Your task to perform on an android device: open a bookmark in the chrome app Image 0: 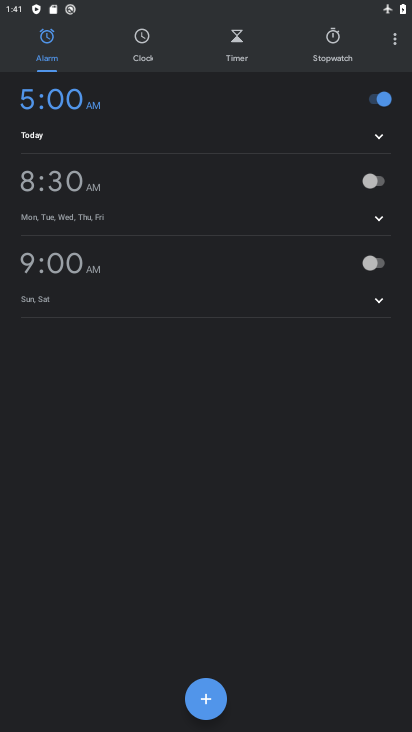
Step 0: press home button
Your task to perform on an android device: open a bookmark in the chrome app Image 1: 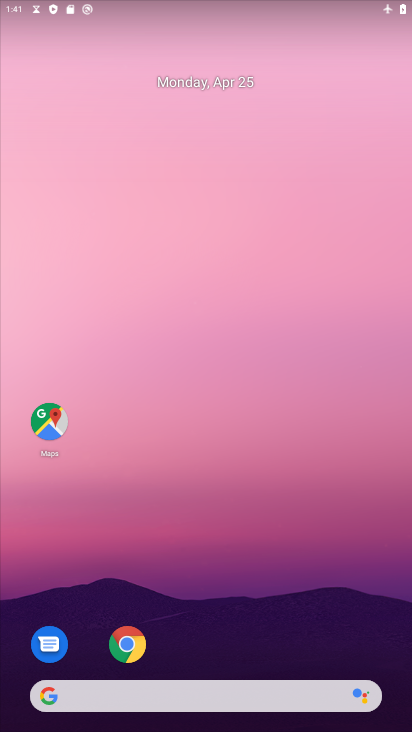
Step 1: click (127, 643)
Your task to perform on an android device: open a bookmark in the chrome app Image 2: 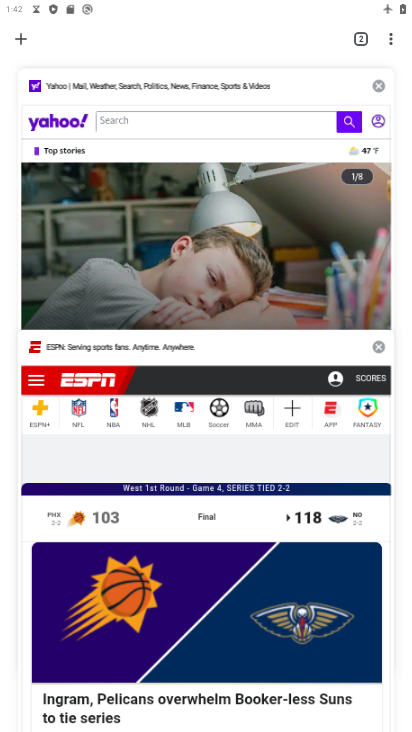
Step 2: click (392, 41)
Your task to perform on an android device: open a bookmark in the chrome app Image 3: 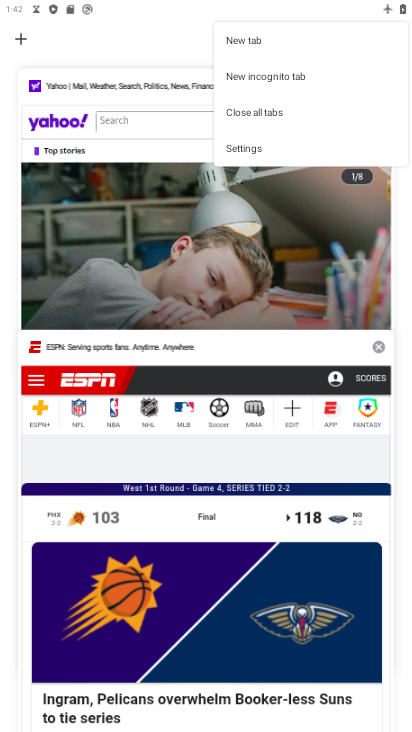
Step 3: click (399, 226)
Your task to perform on an android device: open a bookmark in the chrome app Image 4: 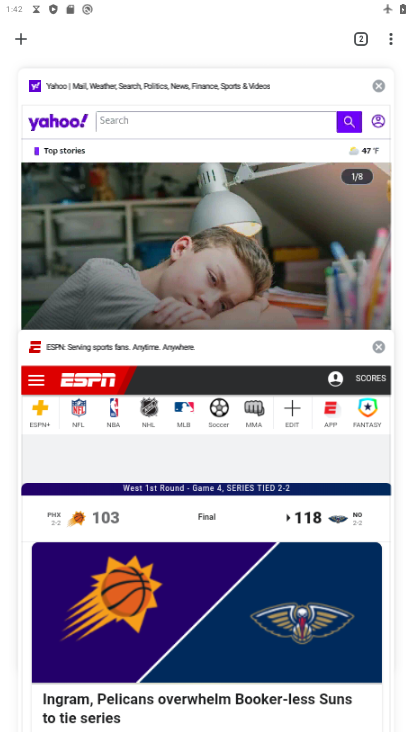
Step 4: click (390, 39)
Your task to perform on an android device: open a bookmark in the chrome app Image 5: 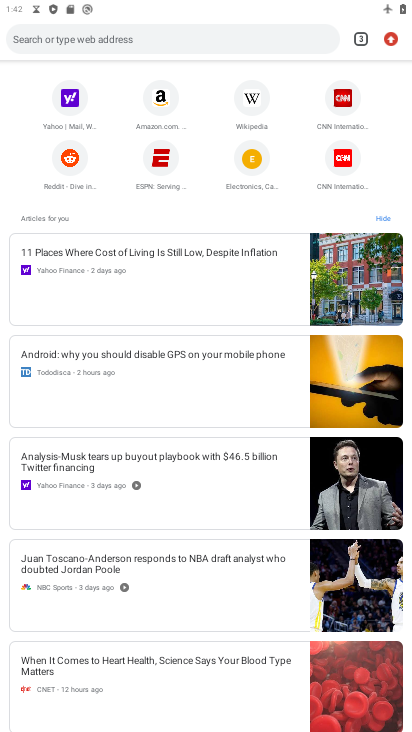
Step 5: click (389, 40)
Your task to perform on an android device: open a bookmark in the chrome app Image 6: 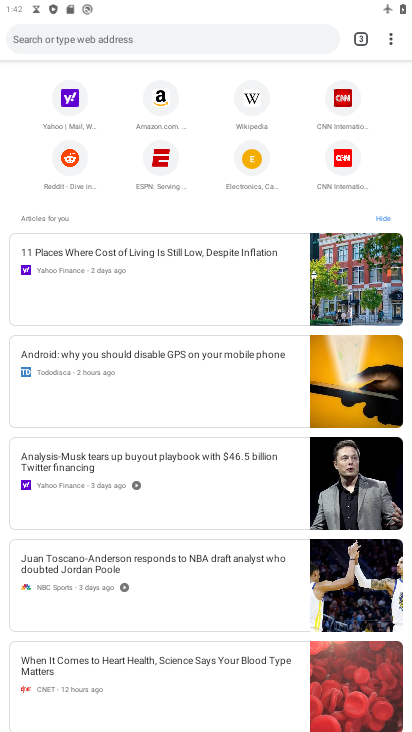
Step 6: drag from (389, 40) to (264, 189)
Your task to perform on an android device: open a bookmark in the chrome app Image 7: 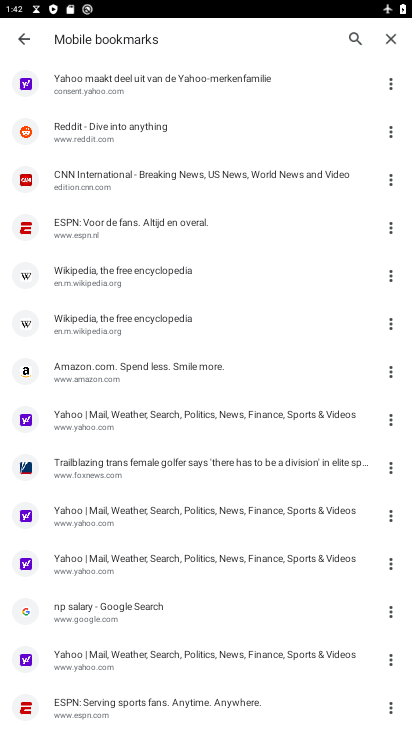
Step 7: click (98, 241)
Your task to perform on an android device: open a bookmark in the chrome app Image 8: 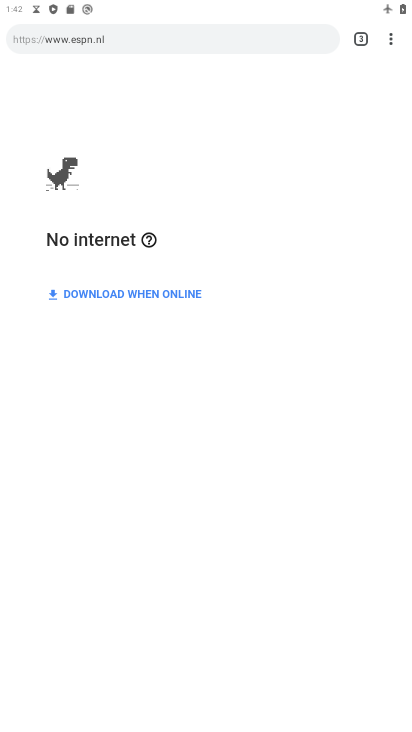
Step 8: task complete